Your task to perform on an android device: Open calendar and show me the second week of next month Image 0: 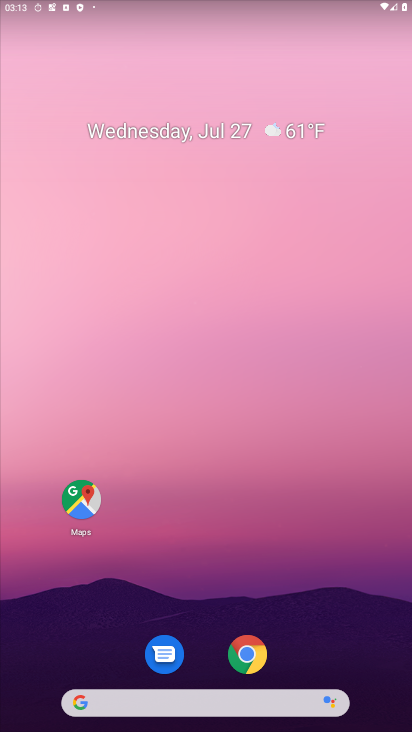
Step 0: drag from (263, 705) to (349, 156)
Your task to perform on an android device: Open calendar and show me the second week of next month Image 1: 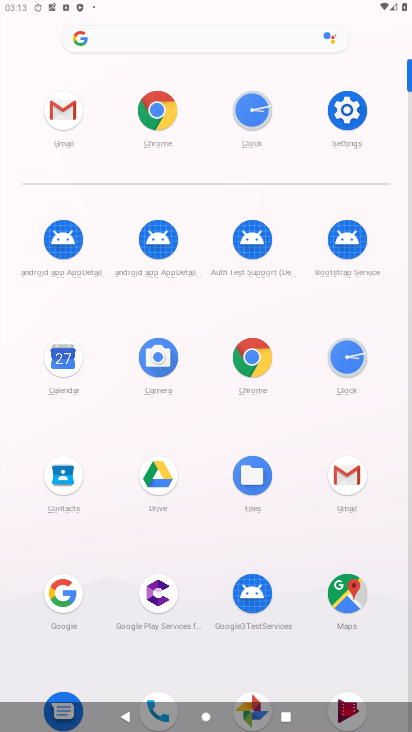
Step 1: click (51, 357)
Your task to perform on an android device: Open calendar and show me the second week of next month Image 2: 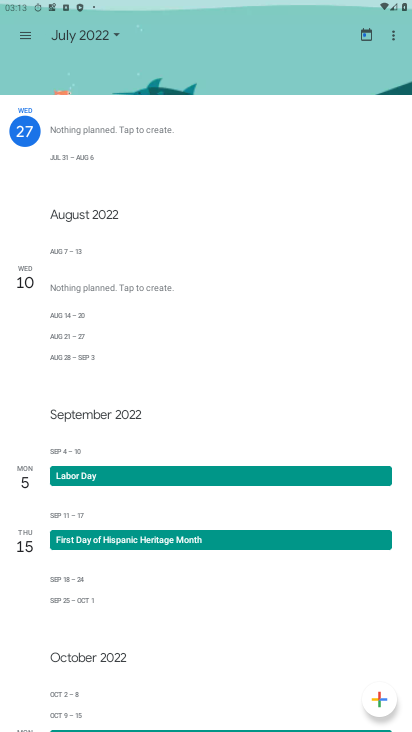
Step 2: click (114, 34)
Your task to perform on an android device: Open calendar and show me the second week of next month Image 3: 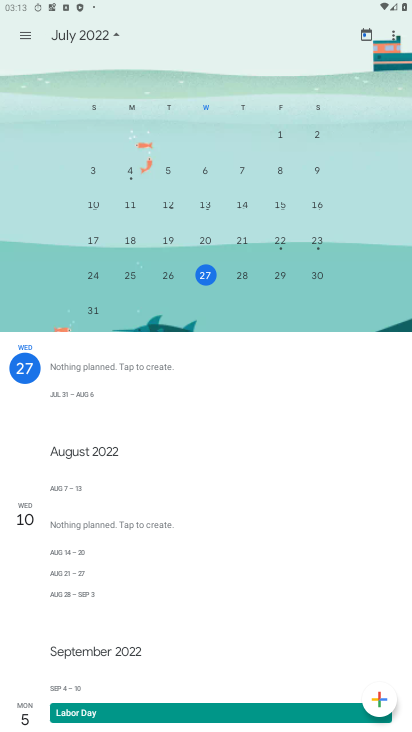
Step 3: drag from (306, 196) to (101, 210)
Your task to perform on an android device: Open calendar and show me the second week of next month Image 4: 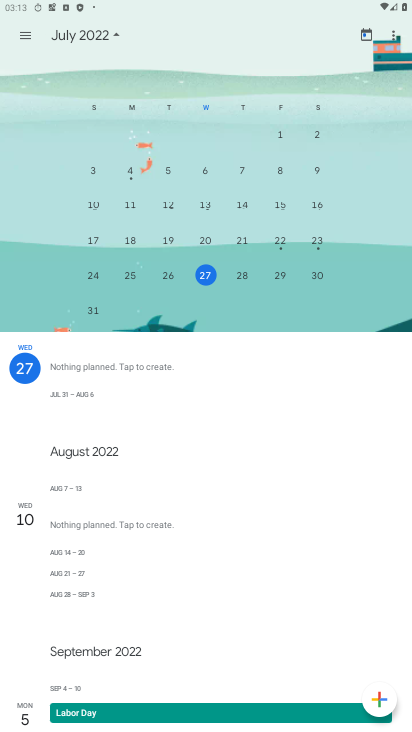
Step 4: drag from (331, 215) to (98, 212)
Your task to perform on an android device: Open calendar and show me the second week of next month Image 5: 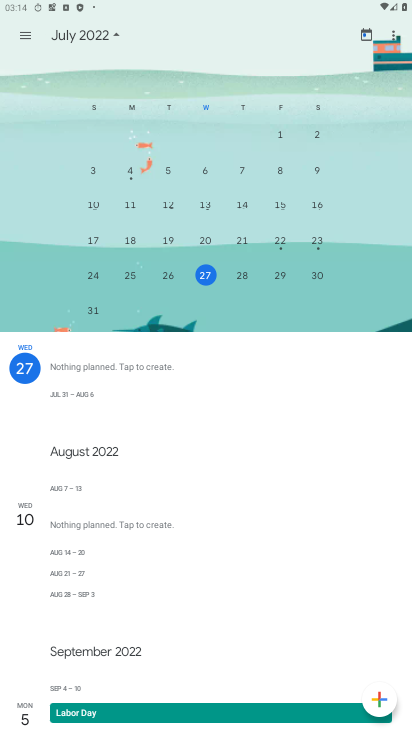
Step 5: drag from (407, 231) to (12, 470)
Your task to perform on an android device: Open calendar and show me the second week of next month Image 6: 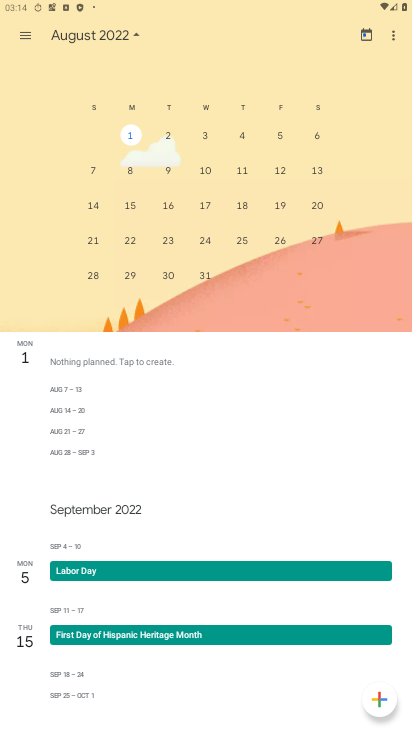
Step 6: click (206, 172)
Your task to perform on an android device: Open calendar and show me the second week of next month Image 7: 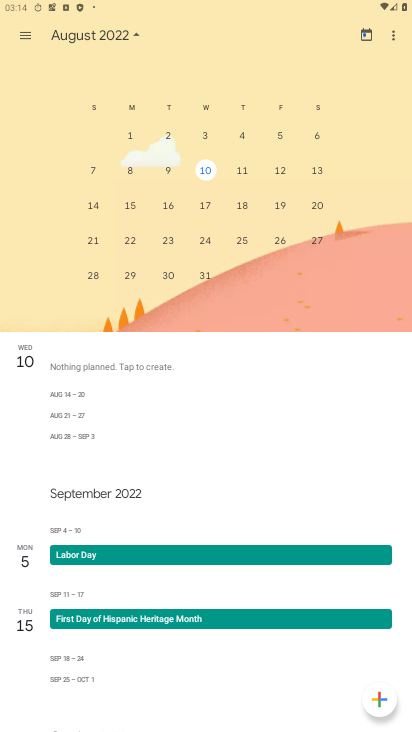
Step 7: task complete